Your task to perform on an android device: turn off priority inbox in the gmail app Image 0: 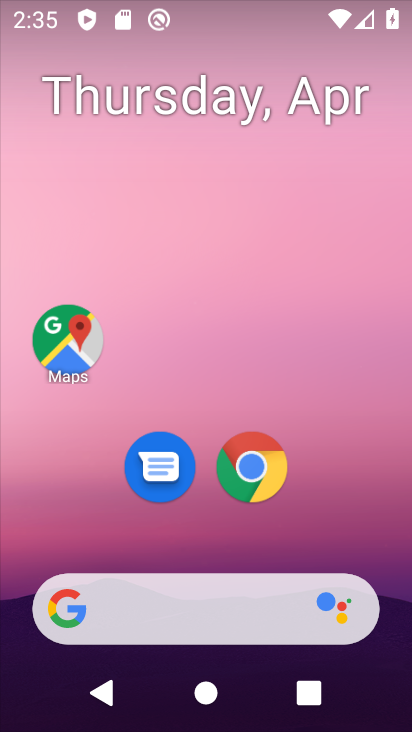
Step 0: drag from (335, 441) to (327, 90)
Your task to perform on an android device: turn off priority inbox in the gmail app Image 1: 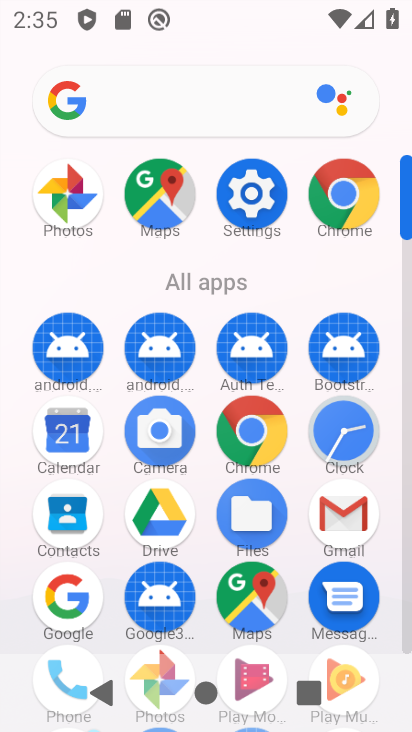
Step 1: click (332, 513)
Your task to perform on an android device: turn off priority inbox in the gmail app Image 2: 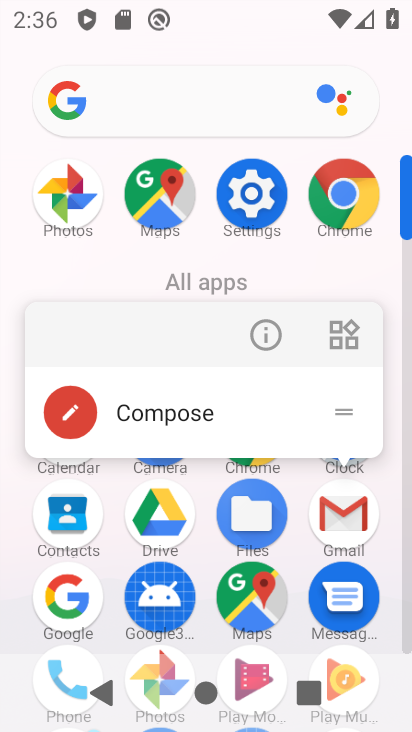
Step 2: click (332, 511)
Your task to perform on an android device: turn off priority inbox in the gmail app Image 3: 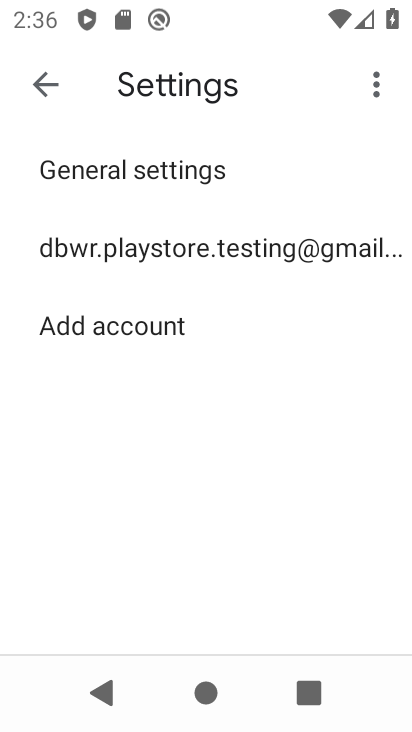
Step 3: click (271, 252)
Your task to perform on an android device: turn off priority inbox in the gmail app Image 4: 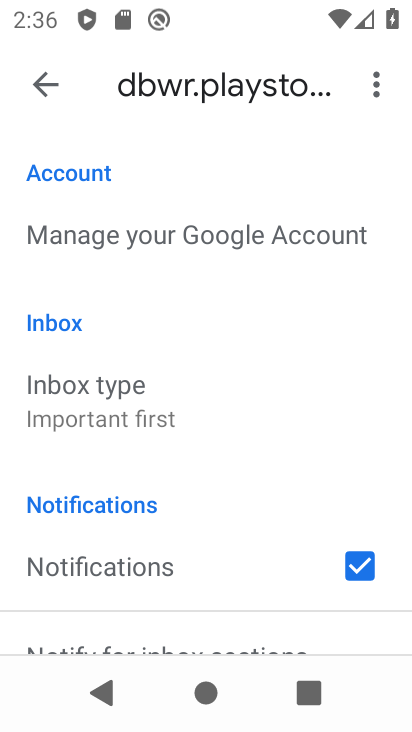
Step 4: click (109, 400)
Your task to perform on an android device: turn off priority inbox in the gmail app Image 5: 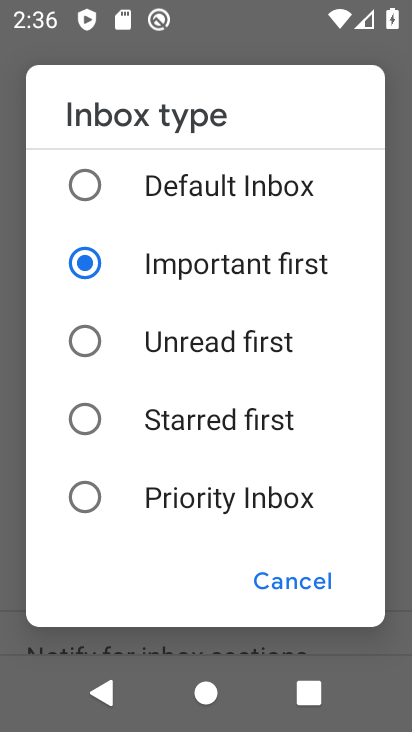
Step 5: click (85, 185)
Your task to perform on an android device: turn off priority inbox in the gmail app Image 6: 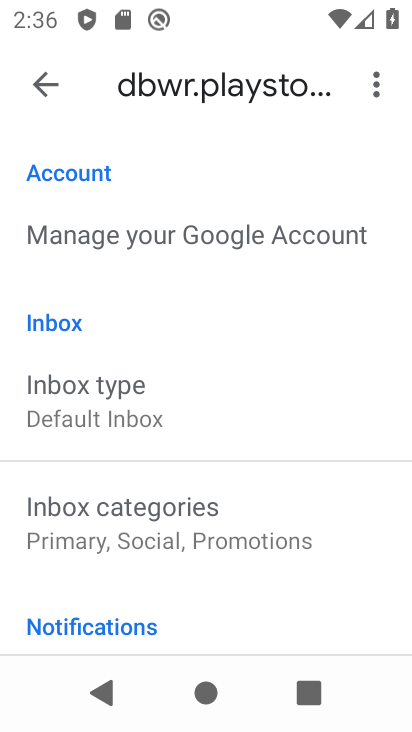
Step 6: task complete